Your task to perform on an android device: check the backup settings in the google photos Image 0: 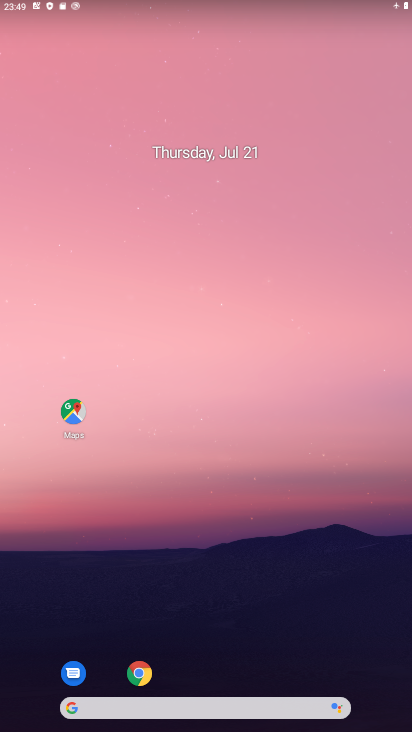
Step 0: drag from (197, 652) to (173, 245)
Your task to perform on an android device: check the backup settings in the google photos Image 1: 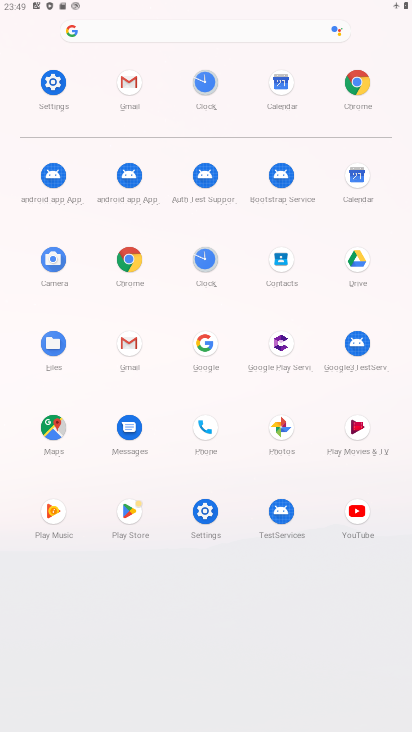
Step 1: click (285, 427)
Your task to perform on an android device: check the backup settings in the google photos Image 2: 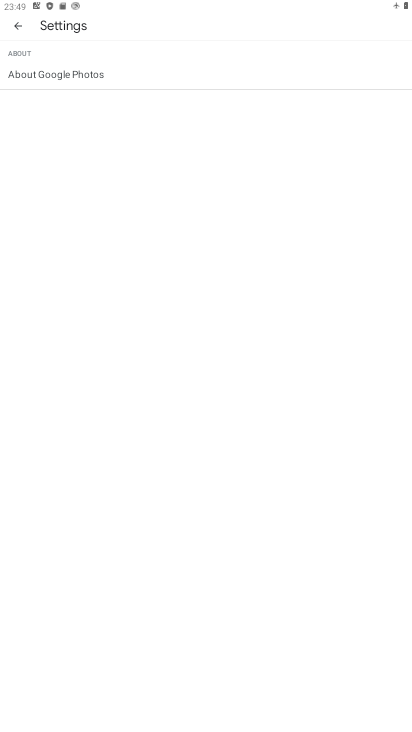
Step 2: click (16, 33)
Your task to perform on an android device: check the backup settings in the google photos Image 3: 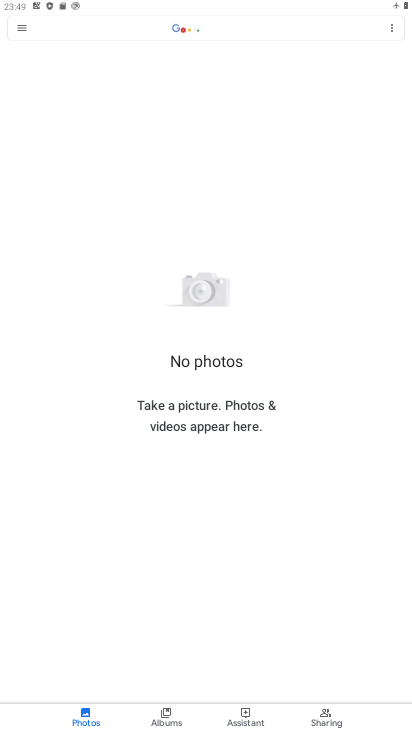
Step 3: click (27, 30)
Your task to perform on an android device: check the backup settings in the google photos Image 4: 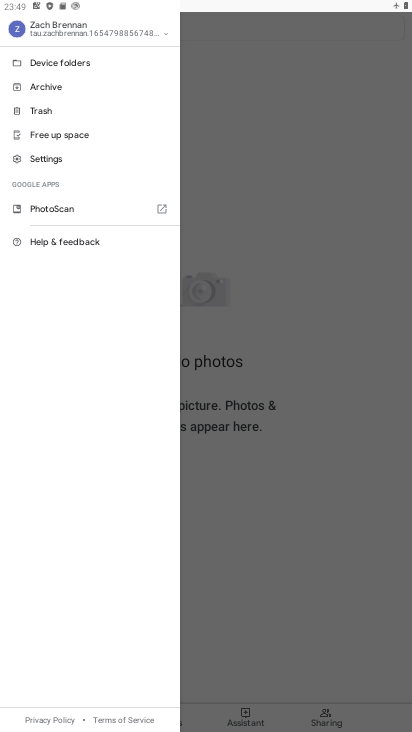
Step 4: click (56, 163)
Your task to perform on an android device: check the backup settings in the google photos Image 5: 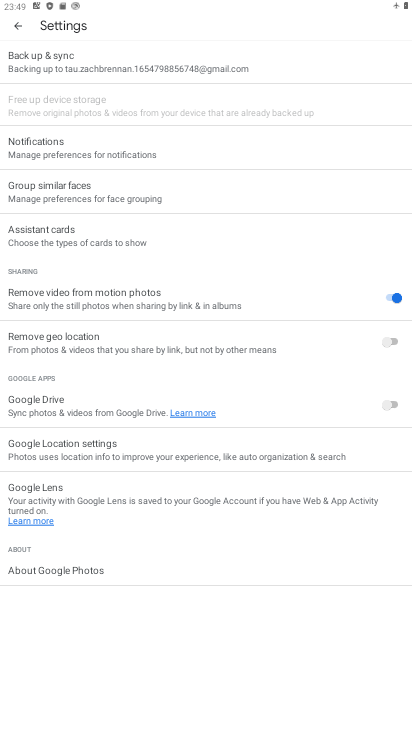
Step 5: click (89, 65)
Your task to perform on an android device: check the backup settings in the google photos Image 6: 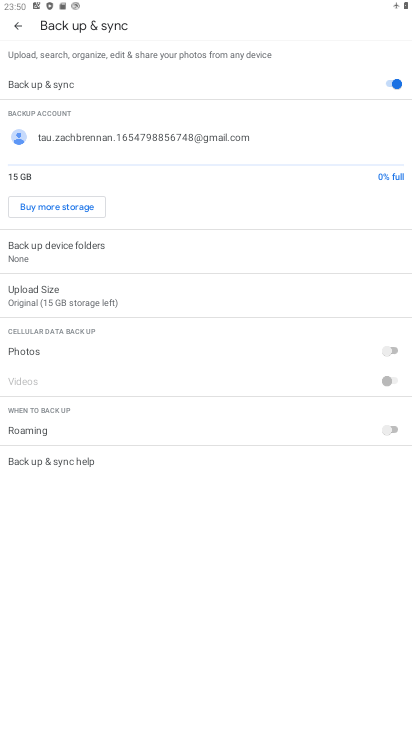
Step 6: task complete